Your task to perform on an android device: Search for pizza restaurants on Maps Image 0: 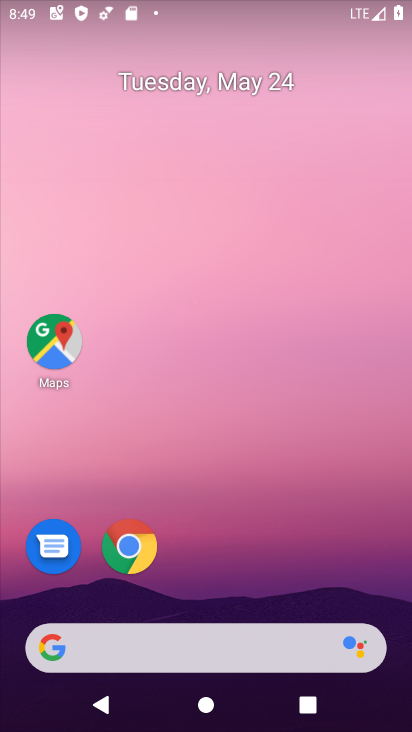
Step 0: drag from (261, 584) to (267, 381)
Your task to perform on an android device: Search for pizza restaurants on Maps Image 1: 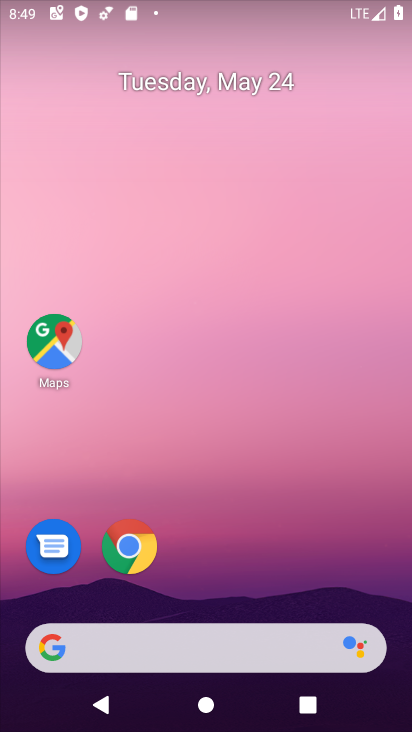
Step 1: click (52, 349)
Your task to perform on an android device: Search for pizza restaurants on Maps Image 2: 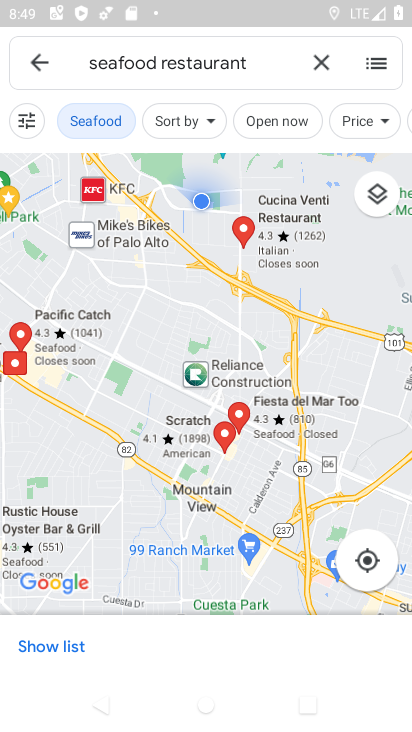
Step 2: click (319, 57)
Your task to perform on an android device: Search for pizza restaurants on Maps Image 3: 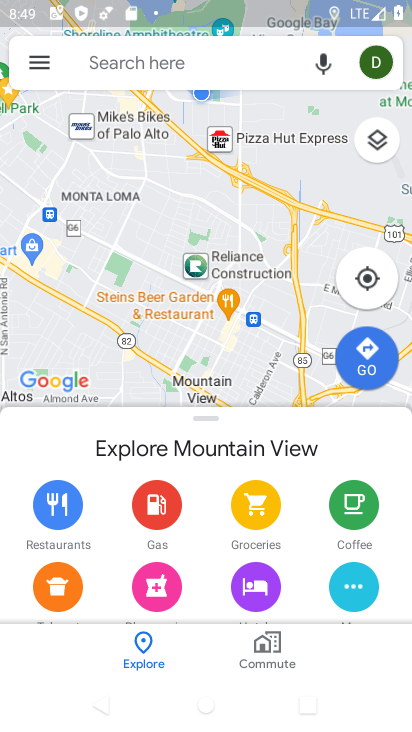
Step 3: click (189, 58)
Your task to perform on an android device: Search for pizza restaurants on Maps Image 4: 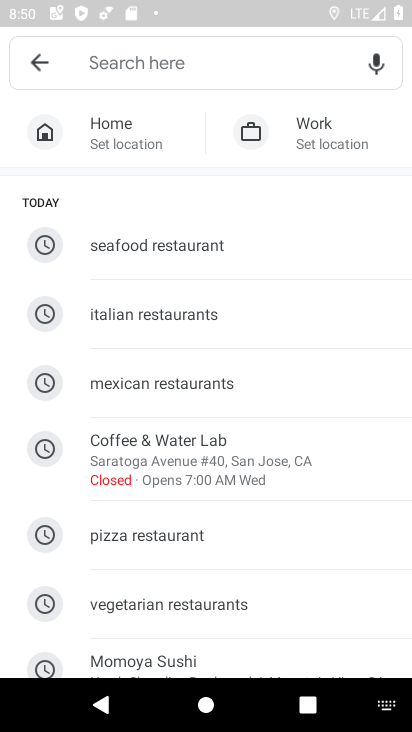
Step 4: type "Pizza restaurants"
Your task to perform on an android device: Search for pizza restaurants on Maps Image 5: 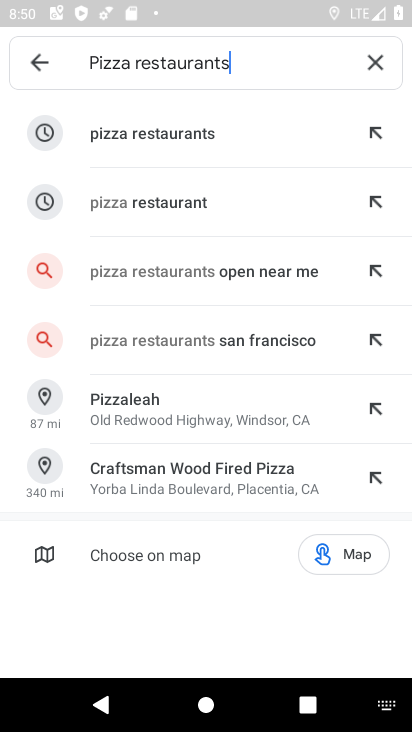
Step 5: click (207, 128)
Your task to perform on an android device: Search for pizza restaurants on Maps Image 6: 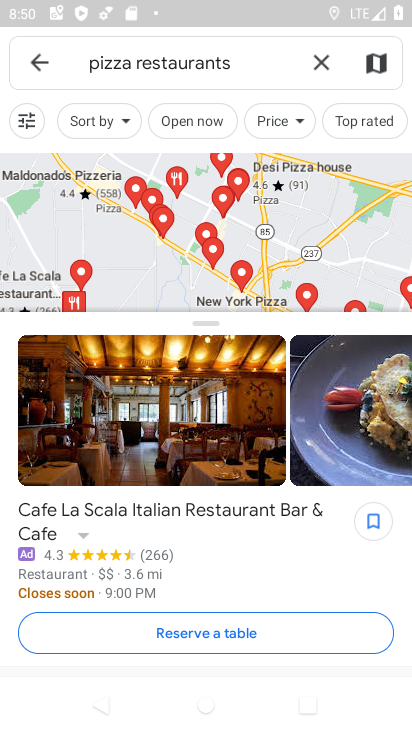
Step 6: drag from (303, 194) to (289, 589)
Your task to perform on an android device: Search for pizza restaurants on Maps Image 7: 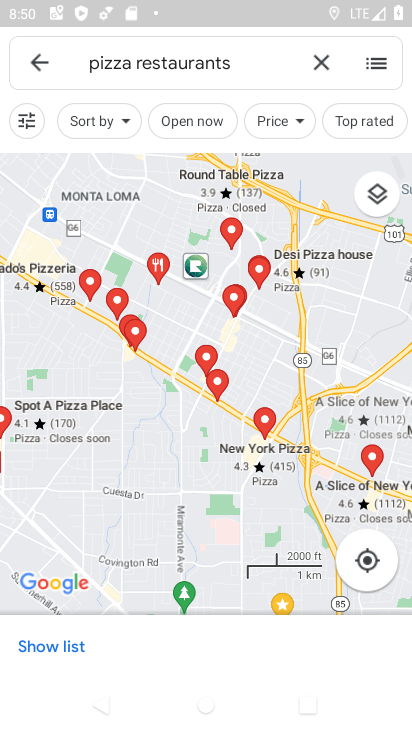
Step 7: click (177, 318)
Your task to perform on an android device: Search for pizza restaurants on Maps Image 8: 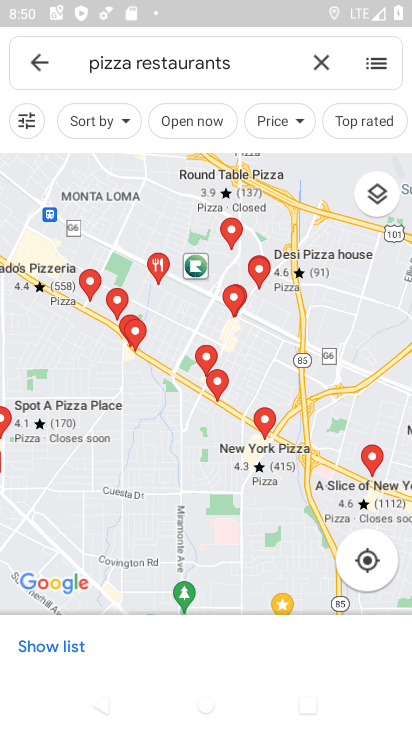
Step 8: task complete